Your task to perform on an android device: Go to sound settings Image 0: 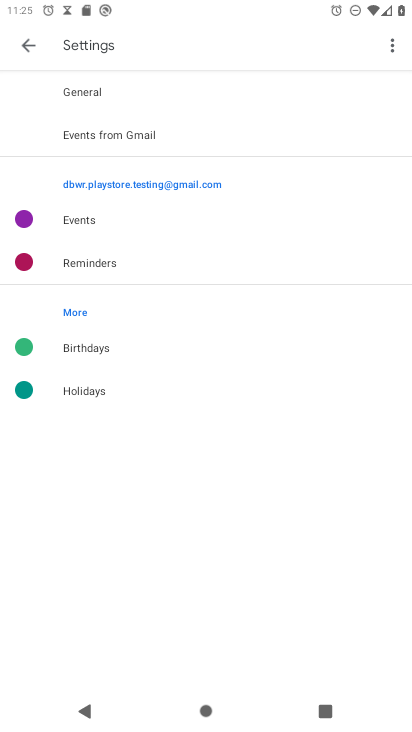
Step 0: press back button
Your task to perform on an android device: Go to sound settings Image 1: 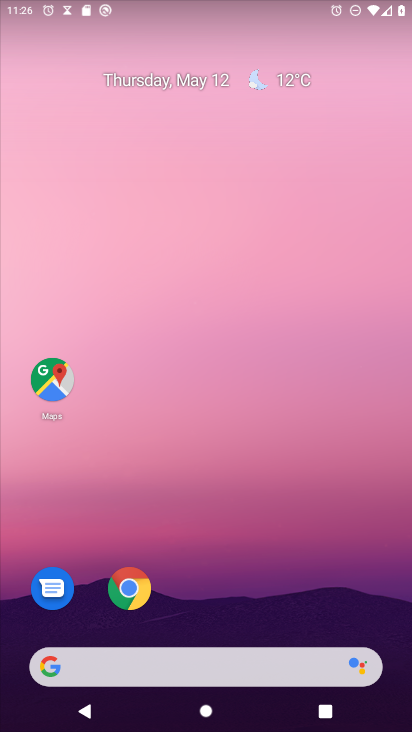
Step 1: drag from (273, 605) to (233, 163)
Your task to perform on an android device: Go to sound settings Image 2: 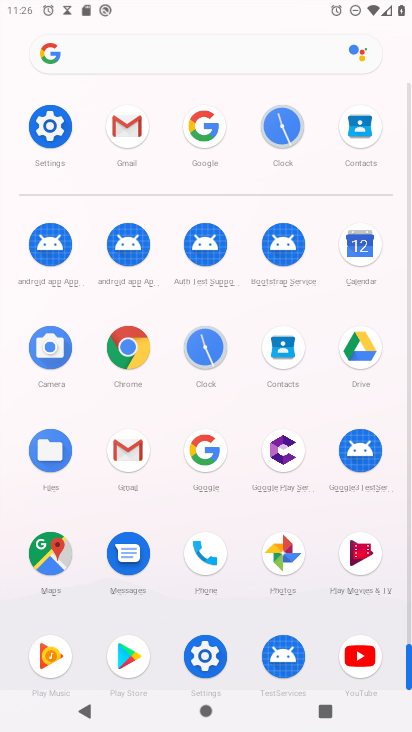
Step 2: click (51, 125)
Your task to perform on an android device: Go to sound settings Image 3: 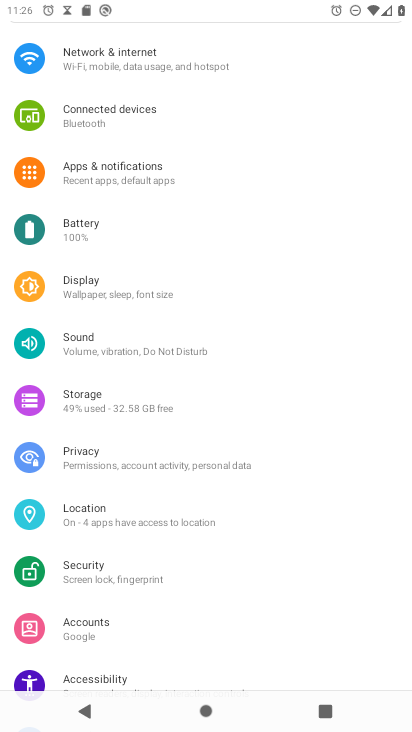
Step 3: click (78, 340)
Your task to perform on an android device: Go to sound settings Image 4: 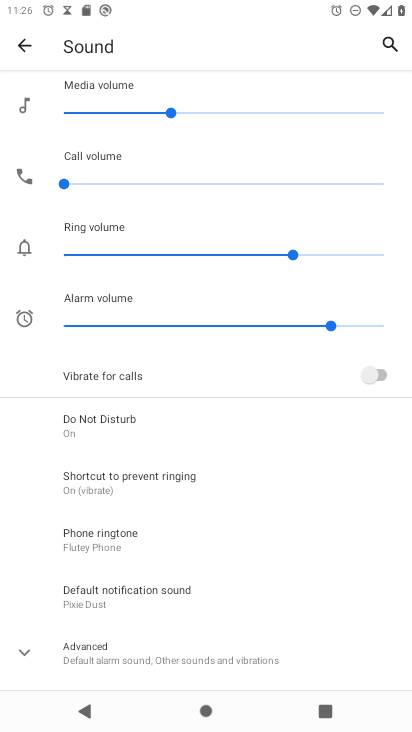
Step 4: task complete